Your task to perform on an android device: turn off sleep mode Image 0: 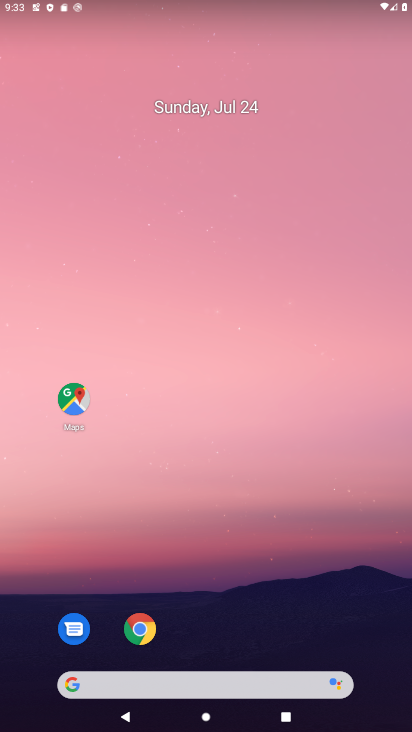
Step 0: task complete